Your task to perform on an android device: Go to accessibility settings Image 0: 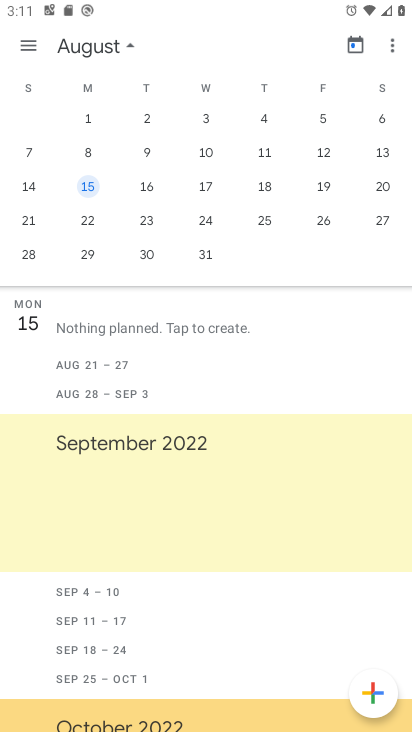
Step 0: press home button
Your task to perform on an android device: Go to accessibility settings Image 1: 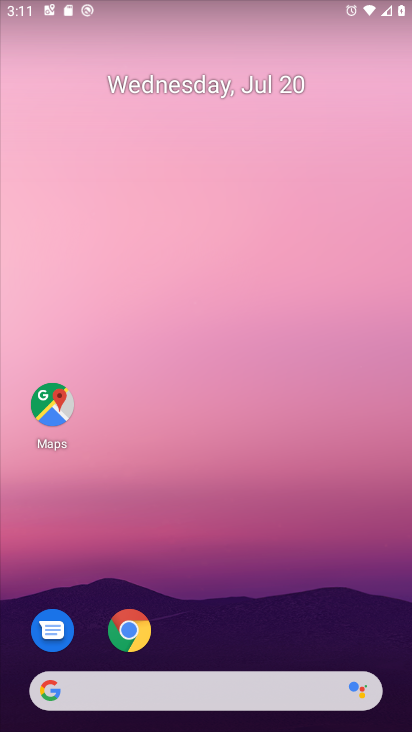
Step 1: drag from (185, 615) to (283, 175)
Your task to perform on an android device: Go to accessibility settings Image 2: 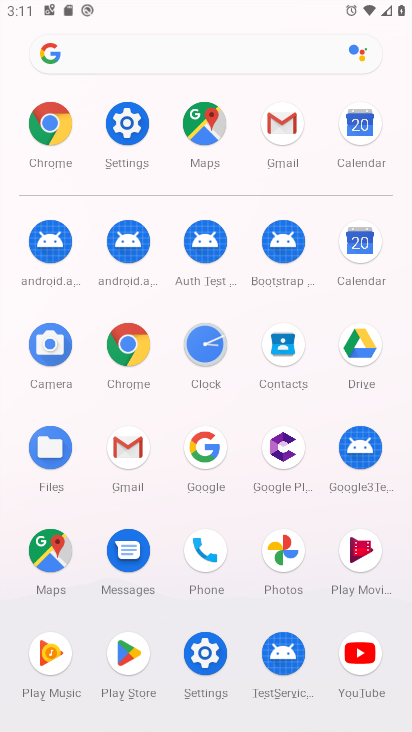
Step 2: click (125, 138)
Your task to perform on an android device: Go to accessibility settings Image 3: 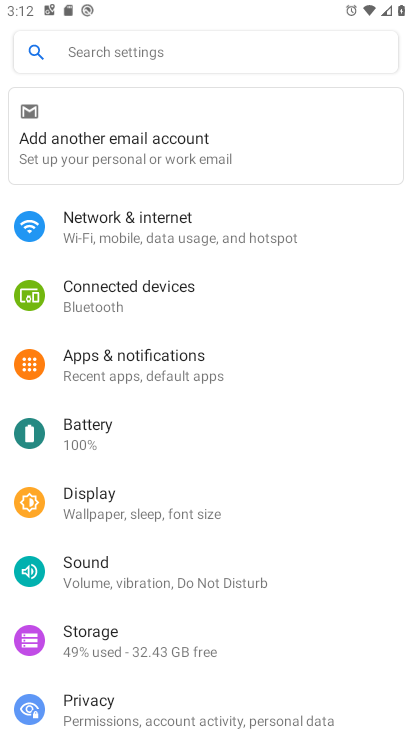
Step 3: drag from (127, 491) to (144, 290)
Your task to perform on an android device: Go to accessibility settings Image 4: 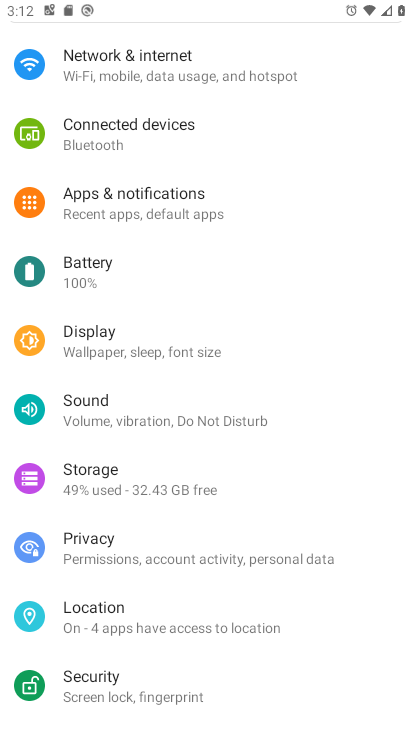
Step 4: drag from (140, 555) to (177, 313)
Your task to perform on an android device: Go to accessibility settings Image 5: 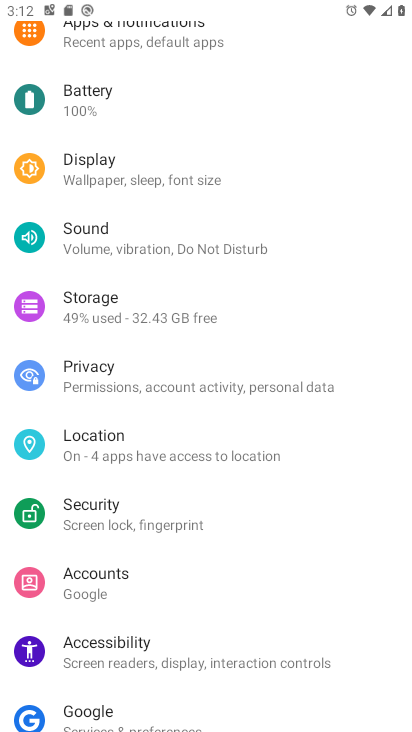
Step 5: click (138, 653)
Your task to perform on an android device: Go to accessibility settings Image 6: 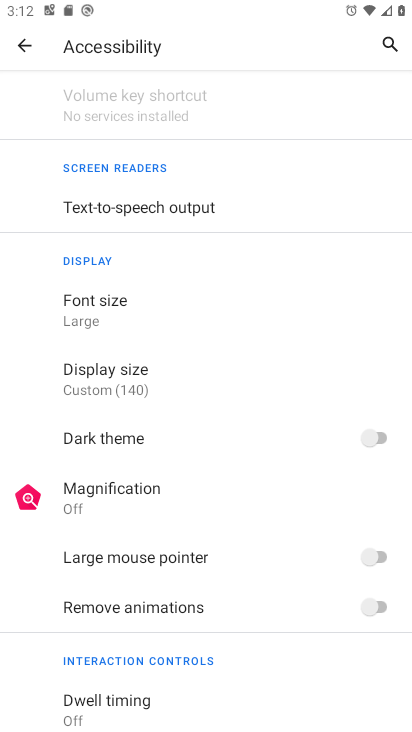
Step 6: task complete